Your task to perform on an android device: Search for pizza restaurants on Maps Image 0: 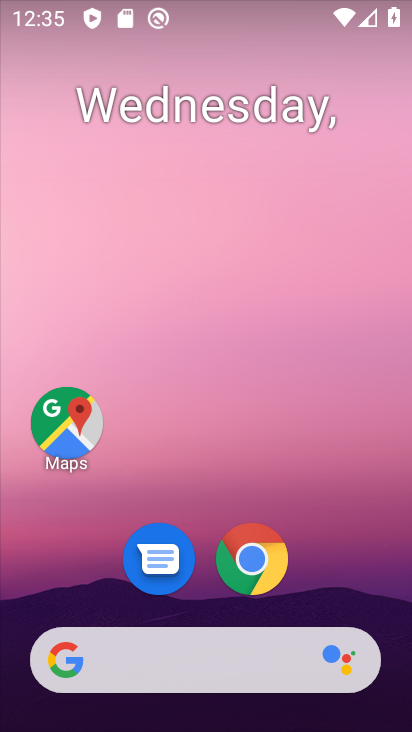
Step 0: click (60, 411)
Your task to perform on an android device: Search for pizza restaurants on Maps Image 1: 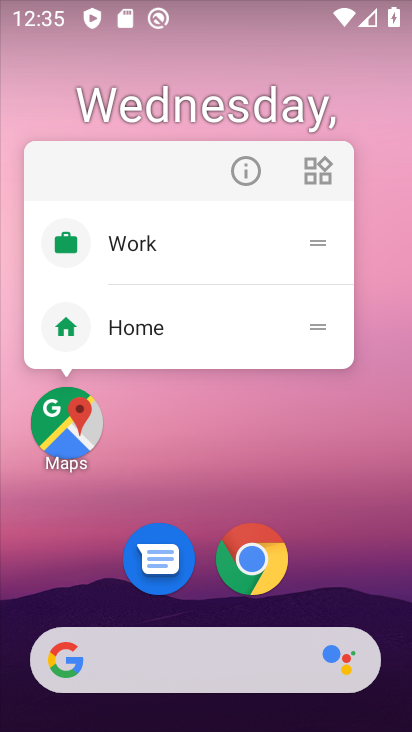
Step 1: click (60, 411)
Your task to perform on an android device: Search for pizza restaurants on Maps Image 2: 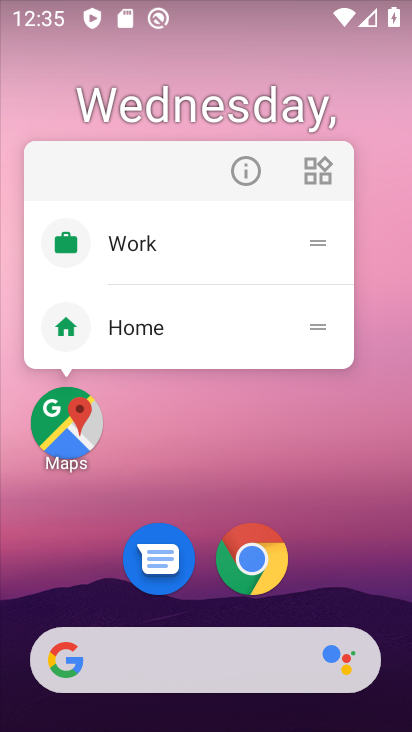
Step 2: click (58, 416)
Your task to perform on an android device: Search for pizza restaurants on Maps Image 3: 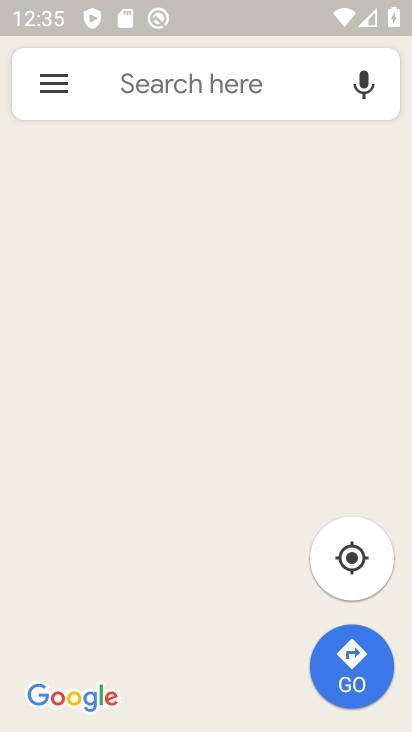
Step 3: click (263, 93)
Your task to perform on an android device: Search for pizza restaurants on Maps Image 4: 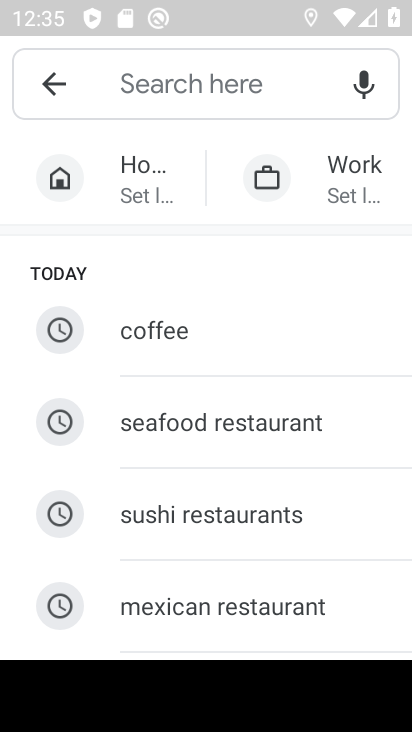
Step 4: type "pizza restaurants"
Your task to perform on an android device: Search for pizza restaurants on Maps Image 5: 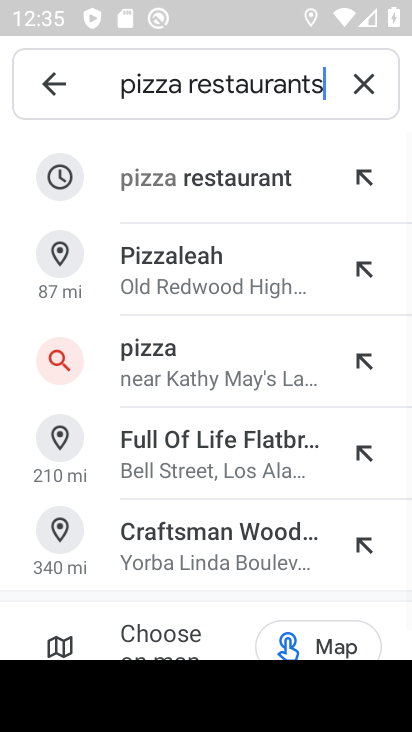
Step 5: click (199, 177)
Your task to perform on an android device: Search for pizza restaurants on Maps Image 6: 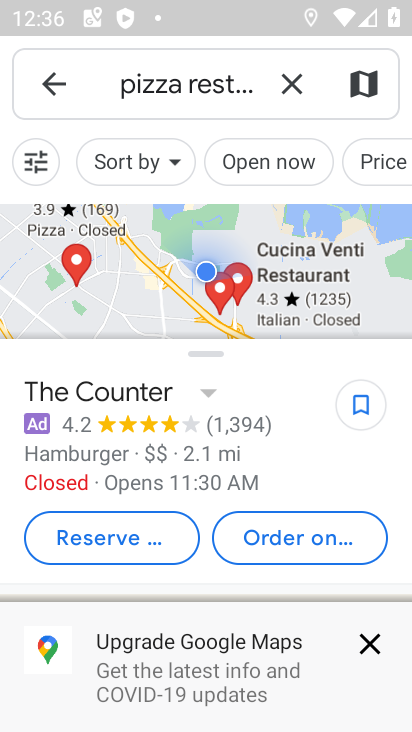
Step 6: task complete